Your task to perform on an android device: change timer sound Image 0: 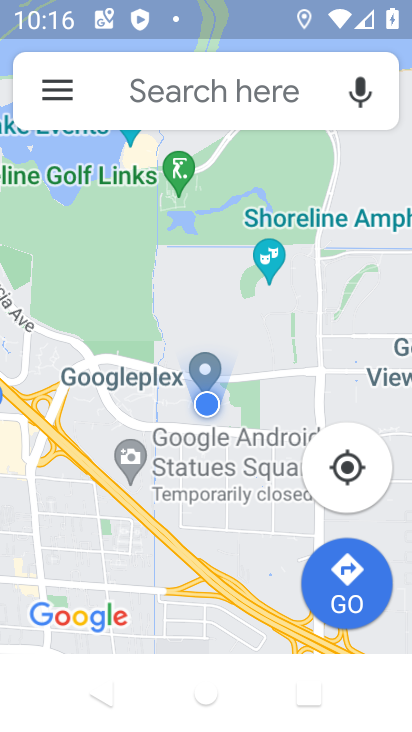
Step 0: drag from (341, 534) to (411, 387)
Your task to perform on an android device: change timer sound Image 1: 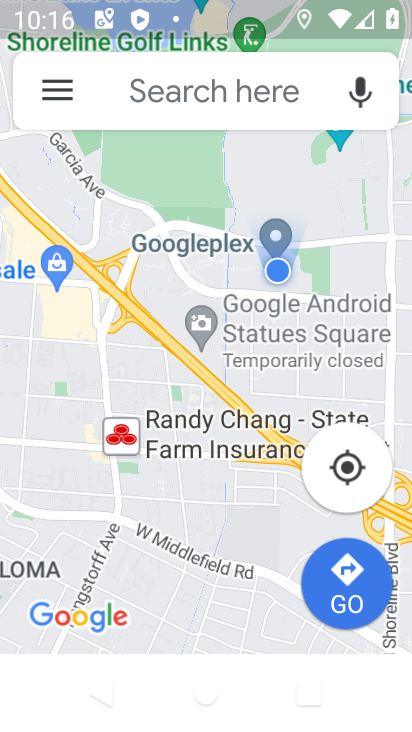
Step 1: press home button
Your task to perform on an android device: change timer sound Image 2: 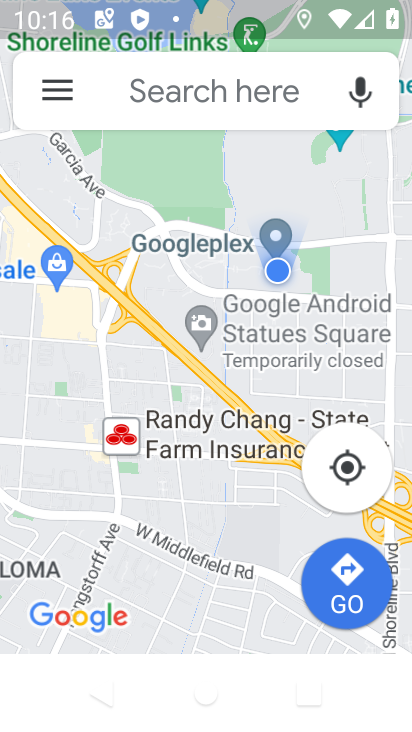
Step 2: drag from (411, 387) to (378, 291)
Your task to perform on an android device: change timer sound Image 3: 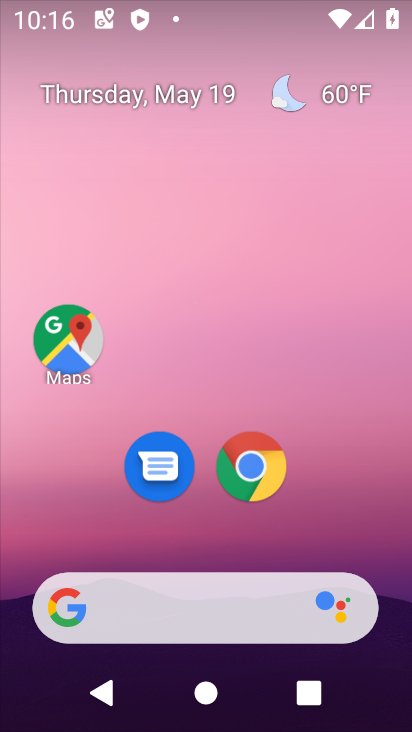
Step 3: drag from (321, 530) to (295, 167)
Your task to perform on an android device: change timer sound Image 4: 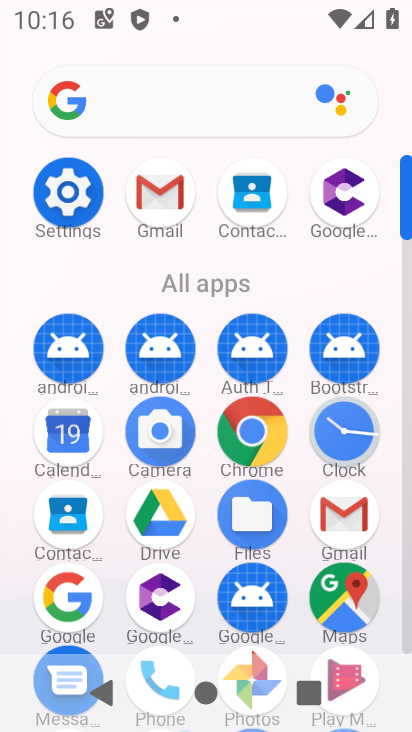
Step 4: click (353, 443)
Your task to perform on an android device: change timer sound Image 5: 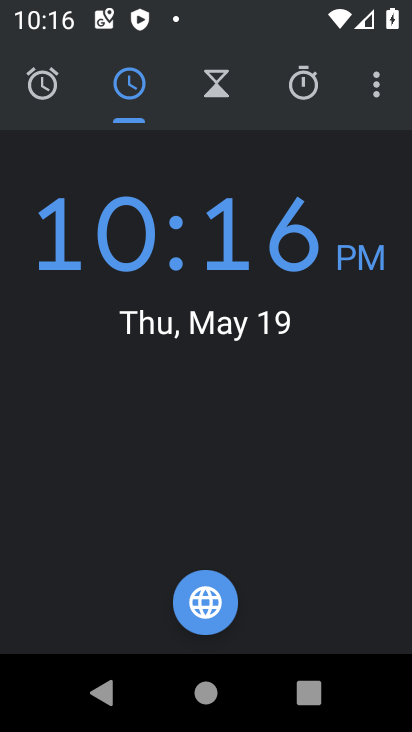
Step 5: click (379, 86)
Your task to perform on an android device: change timer sound Image 6: 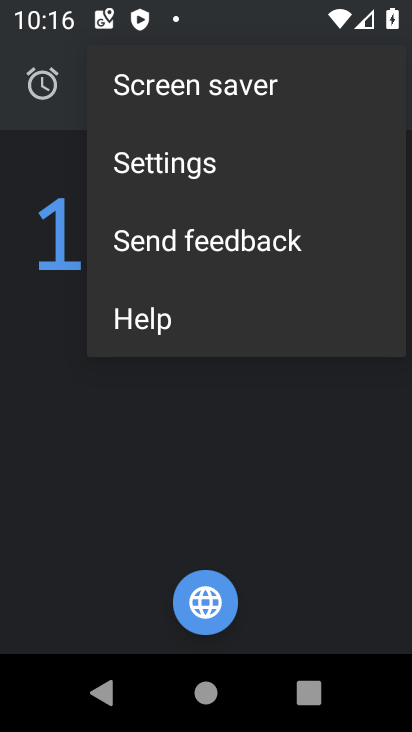
Step 6: click (270, 163)
Your task to perform on an android device: change timer sound Image 7: 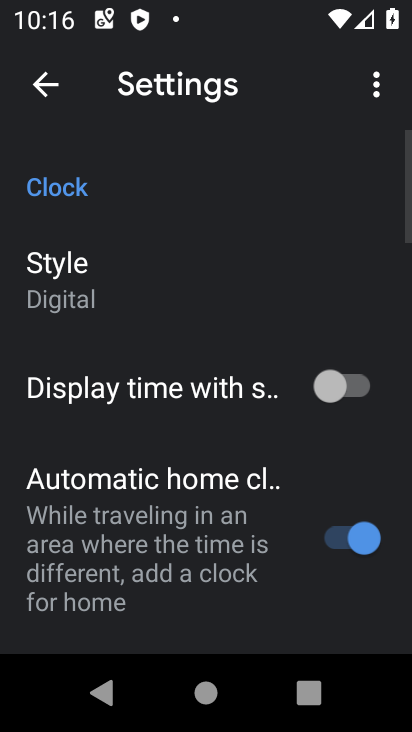
Step 7: drag from (228, 541) to (223, 220)
Your task to perform on an android device: change timer sound Image 8: 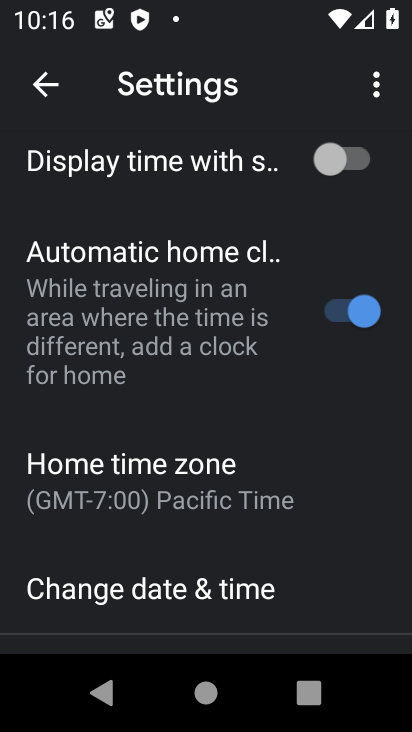
Step 8: drag from (214, 600) to (260, 242)
Your task to perform on an android device: change timer sound Image 9: 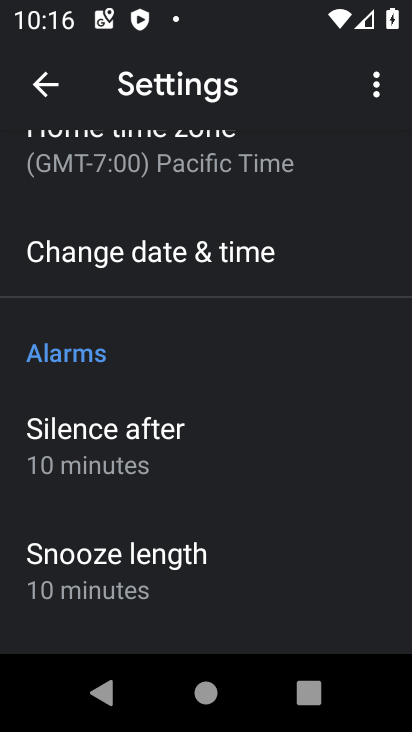
Step 9: drag from (182, 600) to (196, 245)
Your task to perform on an android device: change timer sound Image 10: 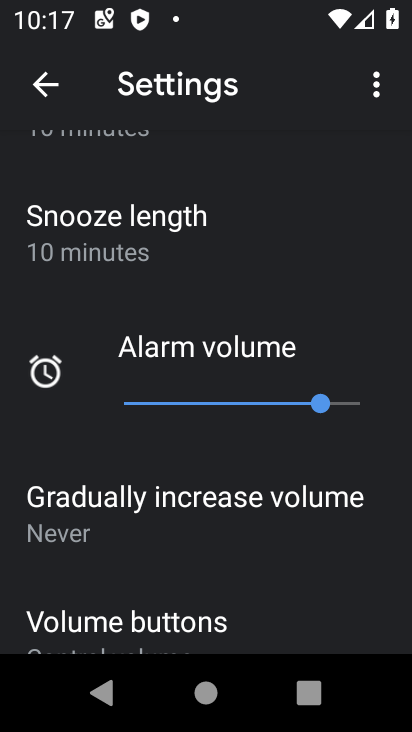
Step 10: drag from (184, 613) to (193, 316)
Your task to perform on an android device: change timer sound Image 11: 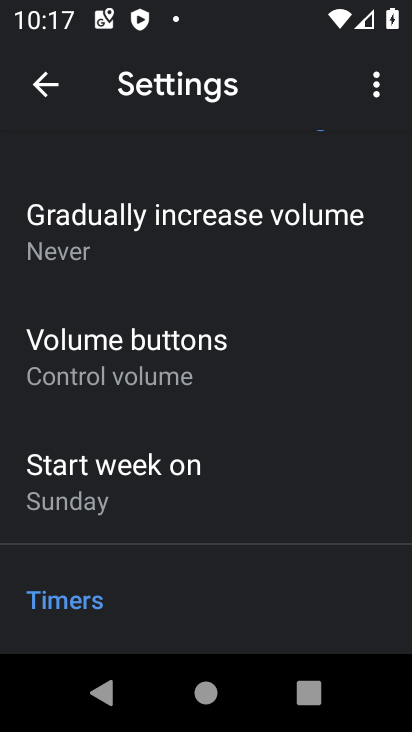
Step 11: drag from (176, 620) to (188, 395)
Your task to perform on an android device: change timer sound Image 12: 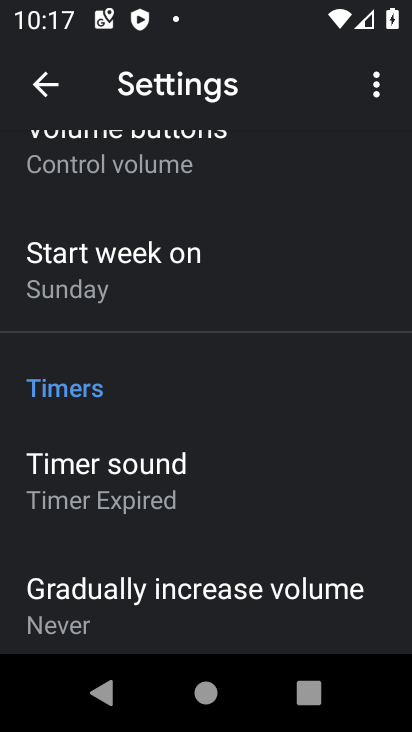
Step 12: click (169, 488)
Your task to perform on an android device: change timer sound Image 13: 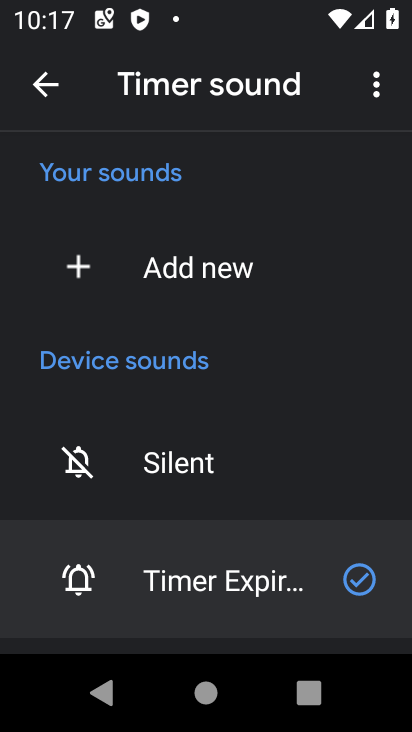
Step 13: drag from (168, 486) to (175, 351)
Your task to perform on an android device: change timer sound Image 14: 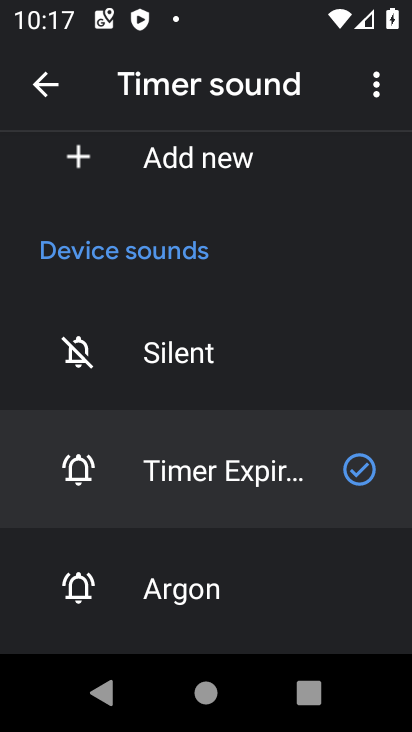
Step 14: click (139, 594)
Your task to perform on an android device: change timer sound Image 15: 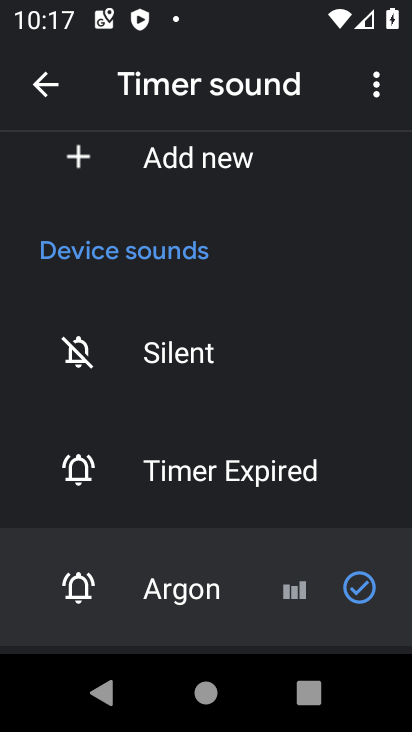
Step 15: task complete